Your task to perform on an android device: Open eBay Image 0: 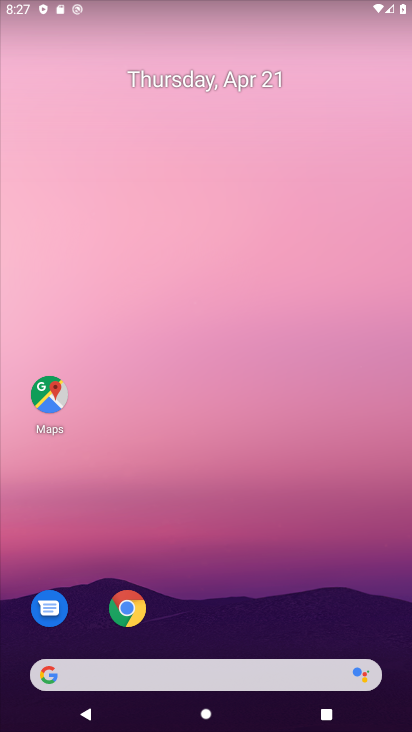
Step 0: drag from (263, 610) to (247, 85)
Your task to perform on an android device: Open eBay Image 1: 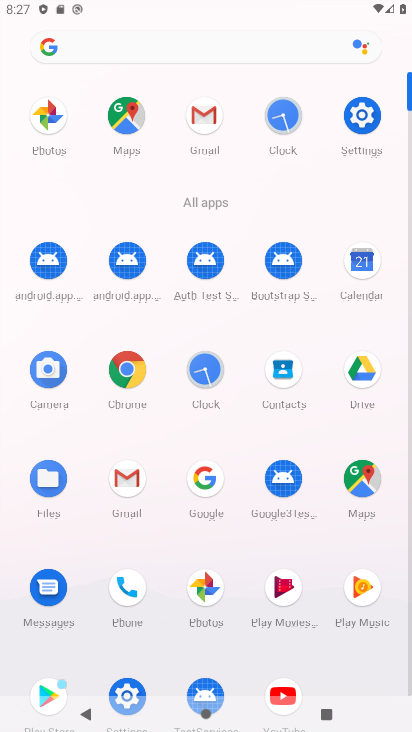
Step 1: click (131, 369)
Your task to perform on an android device: Open eBay Image 2: 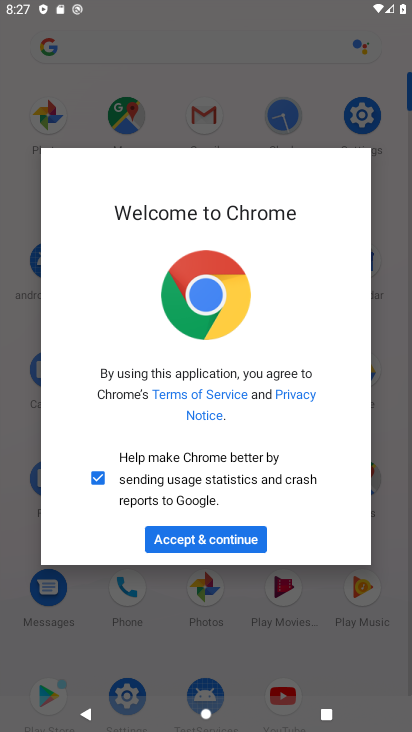
Step 2: click (241, 539)
Your task to perform on an android device: Open eBay Image 3: 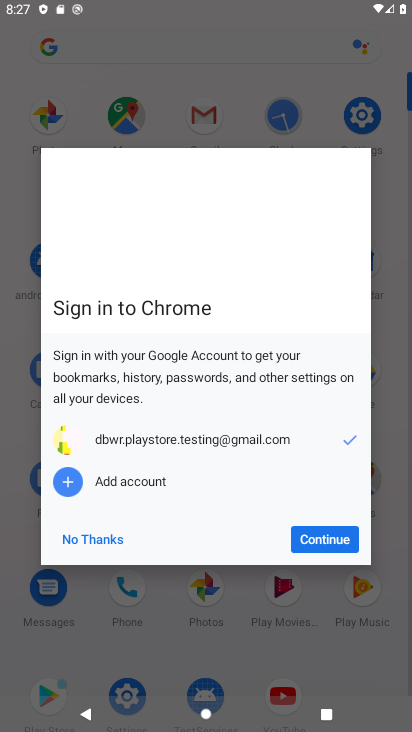
Step 3: click (308, 539)
Your task to perform on an android device: Open eBay Image 4: 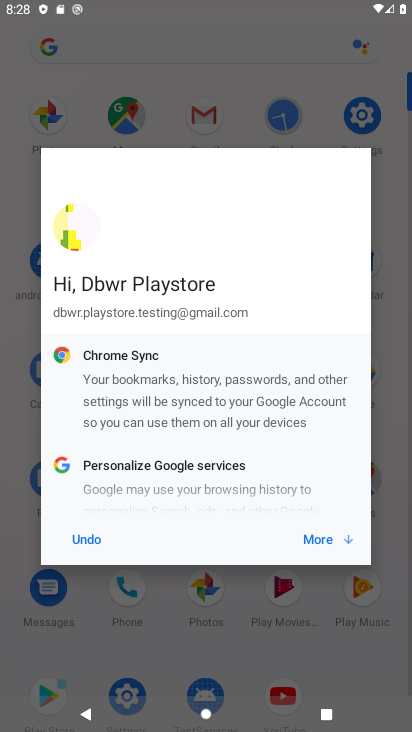
Step 4: click (308, 538)
Your task to perform on an android device: Open eBay Image 5: 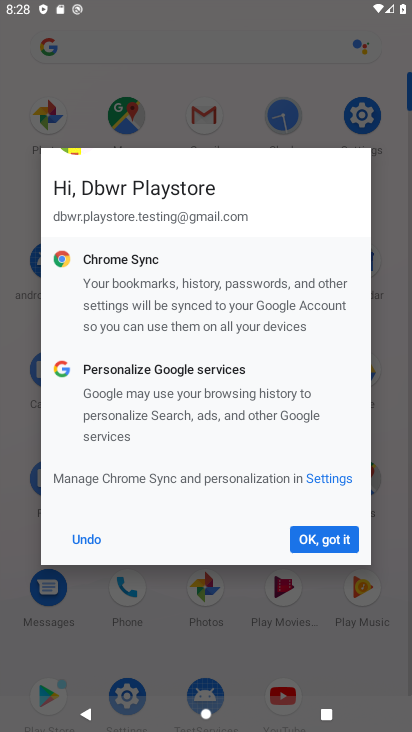
Step 5: click (308, 539)
Your task to perform on an android device: Open eBay Image 6: 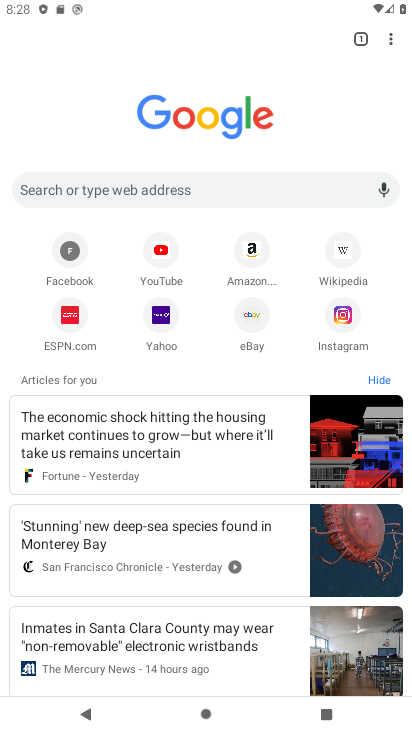
Step 6: click (252, 313)
Your task to perform on an android device: Open eBay Image 7: 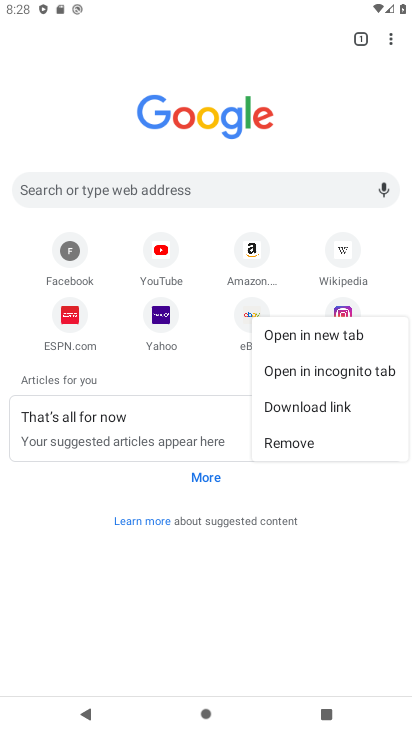
Step 7: click (252, 314)
Your task to perform on an android device: Open eBay Image 8: 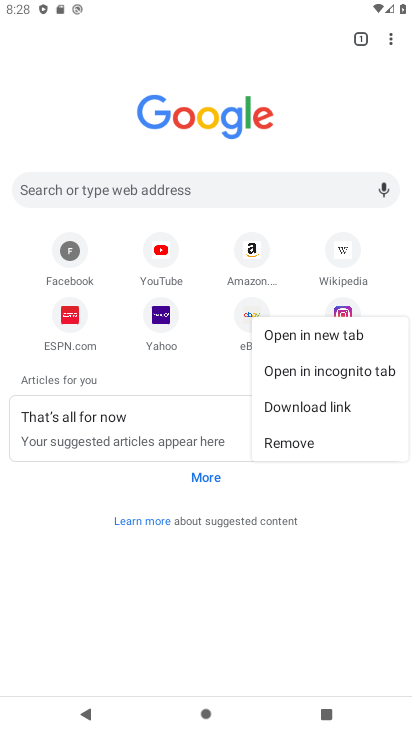
Step 8: click (244, 312)
Your task to perform on an android device: Open eBay Image 9: 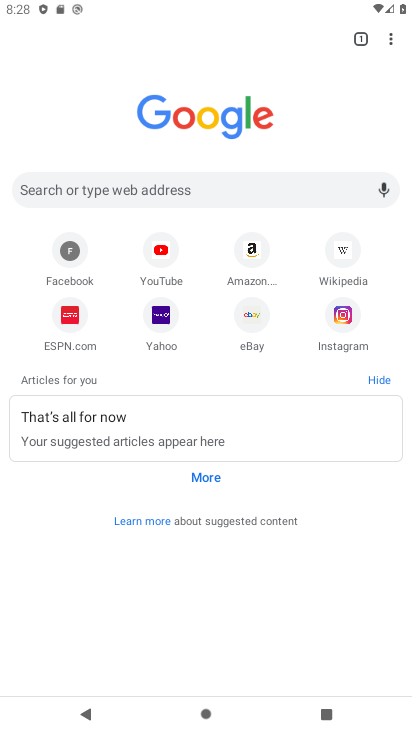
Step 9: click (244, 312)
Your task to perform on an android device: Open eBay Image 10: 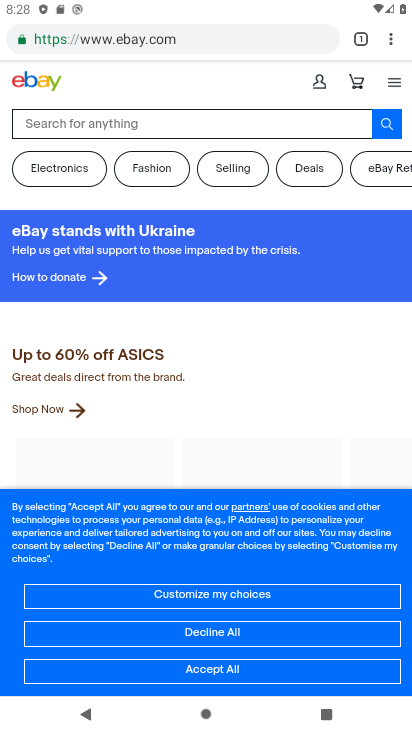
Step 10: task complete